Your task to perform on an android device: Open eBay Image 0: 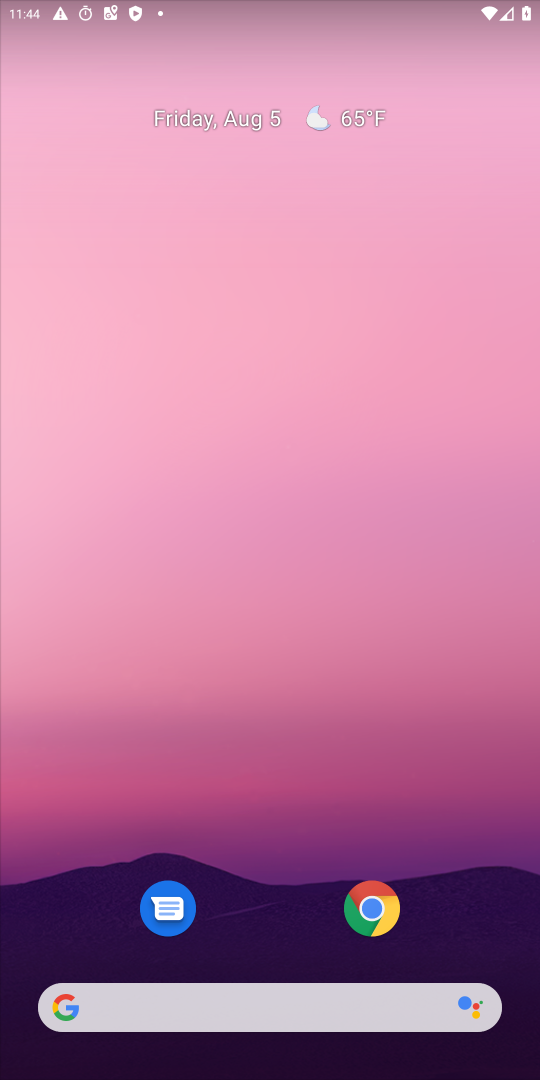
Step 0: click (159, 1003)
Your task to perform on an android device: Open eBay Image 1: 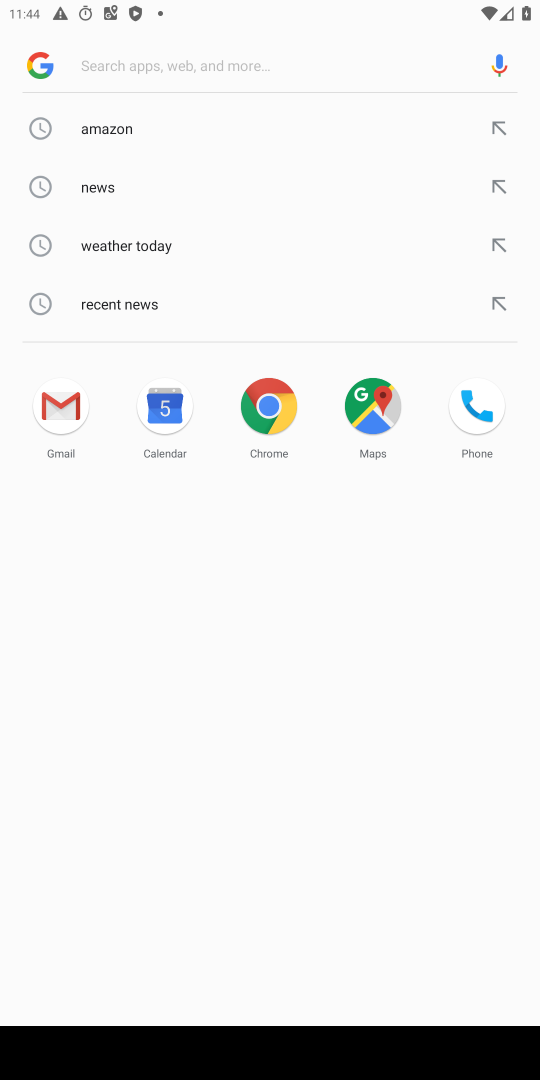
Step 1: type "eBay"
Your task to perform on an android device: Open eBay Image 2: 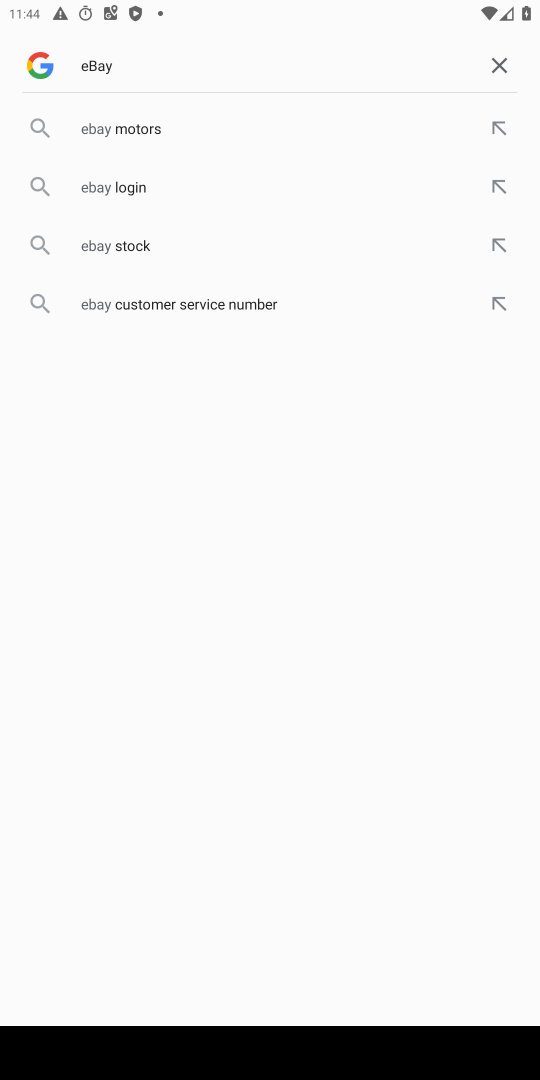
Step 2: type ""
Your task to perform on an android device: Open eBay Image 3: 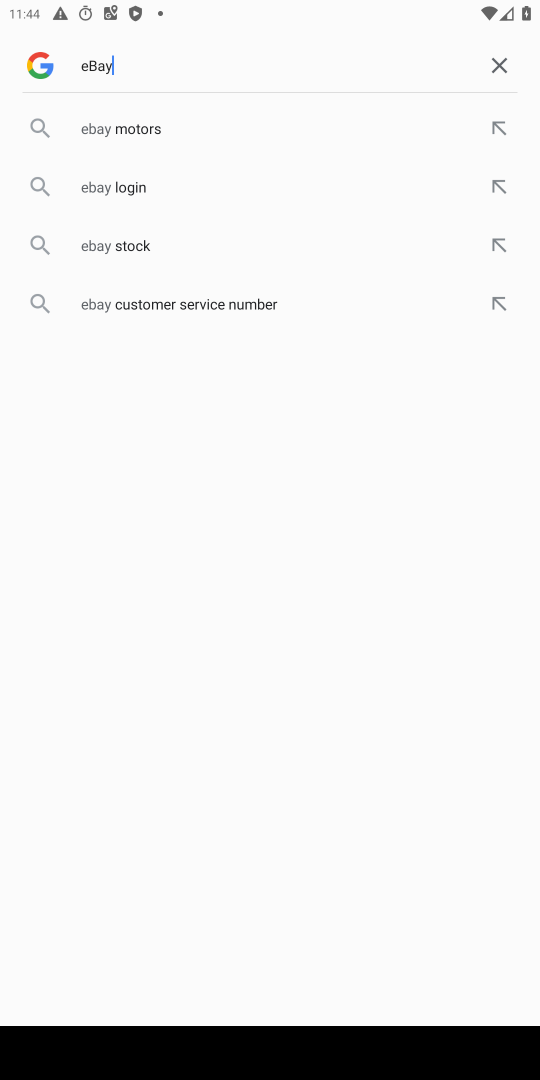
Step 3: task complete